Your task to perform on an android device: Open sound settings Image 0: 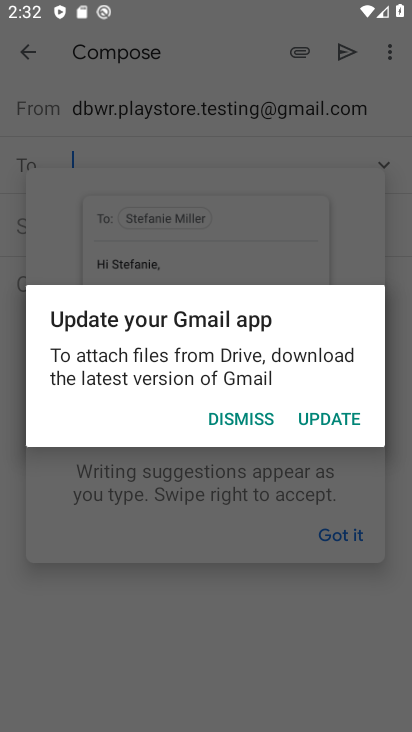
Step 0: press home button
Your task to perform on an android device: Open sound settings Image 1: 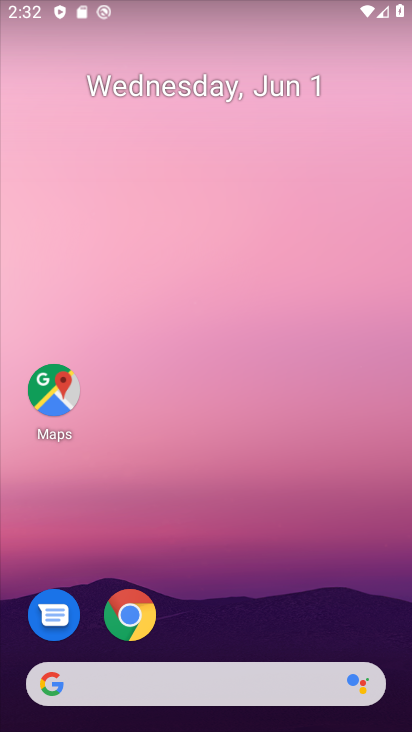
Step 1: drag from (228, 637) to (199, 175)
Your task to perform on an android device: Open sound settings Image 2: 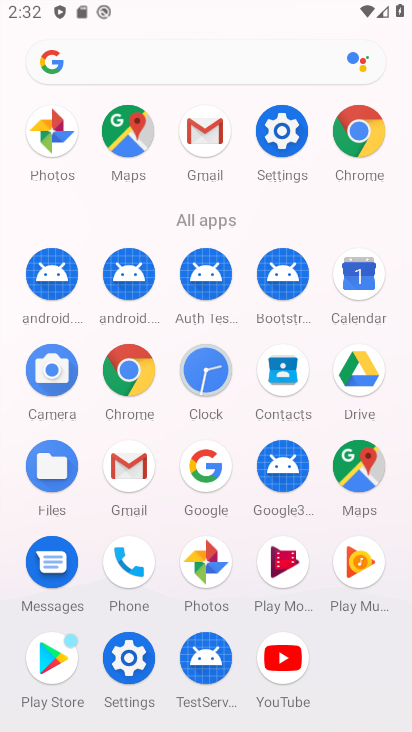
Step 2: click (290, 124)
Your task to perform on an android device: Open sound settings Image 3: 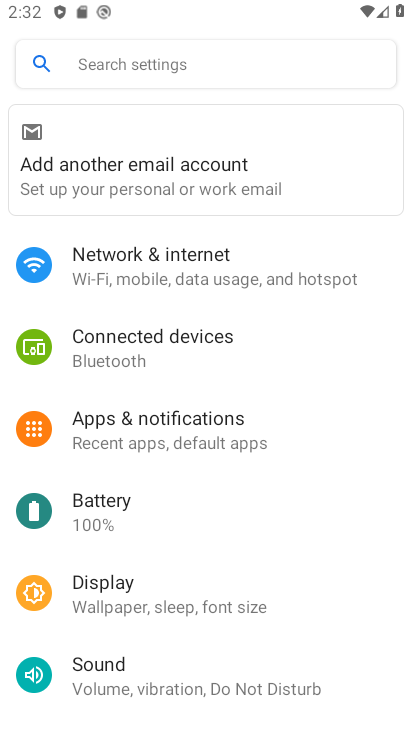
Step 3: click (232, 670)
Your task to perform on an android device: Open sound settings Image 4: 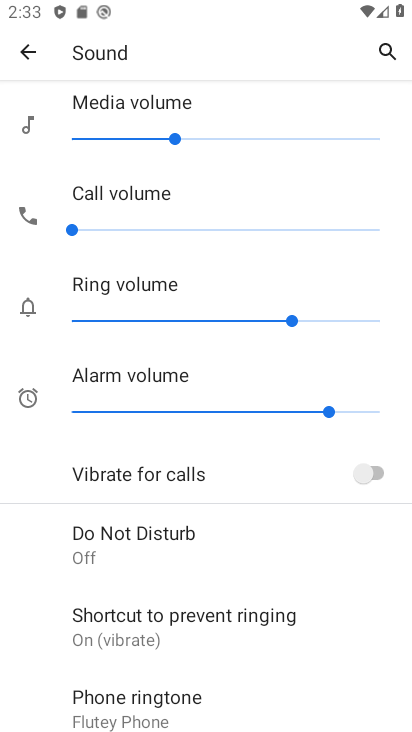
Step 4: task complete